Your task to perform on an android device: Check the weather Image 0: 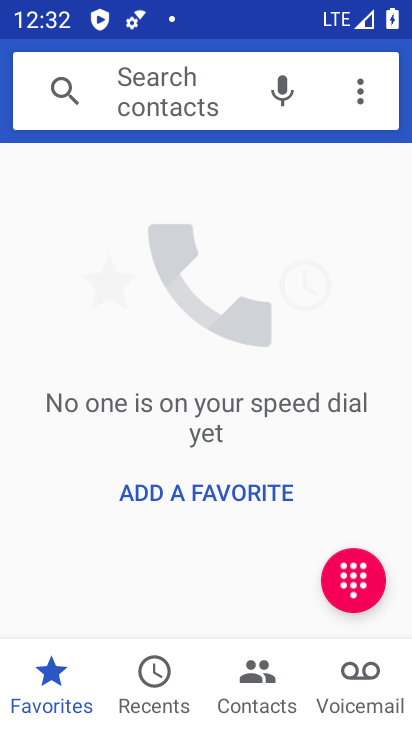
Step 0: press home button
Your task to perform on an android device: Check the weather Image 1: 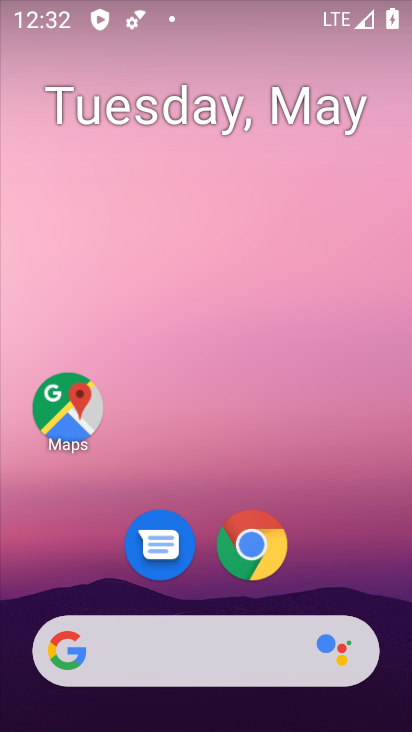
Step 1: drag from (399, 592) to (337, 202)
Your task to perform on an android device: Check the weather Image 2: 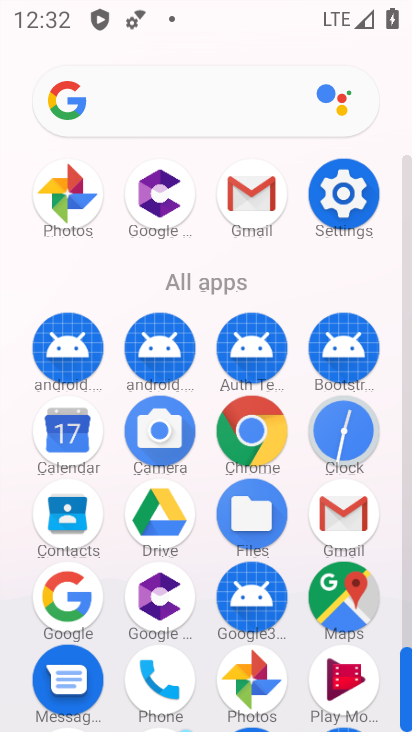
Step 2: drag from (298, 651) to (294, 414)
Your task to perform on an android device: Check the weather Image 3: 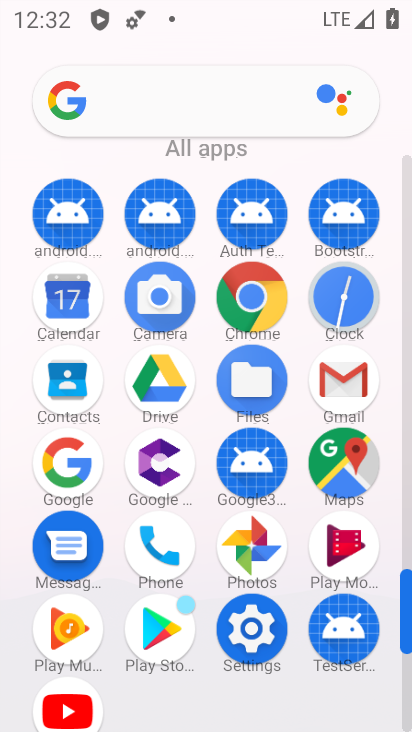
Step 3: click (245, 309)
Your task to perform on an android device: Check the weather Image 4: 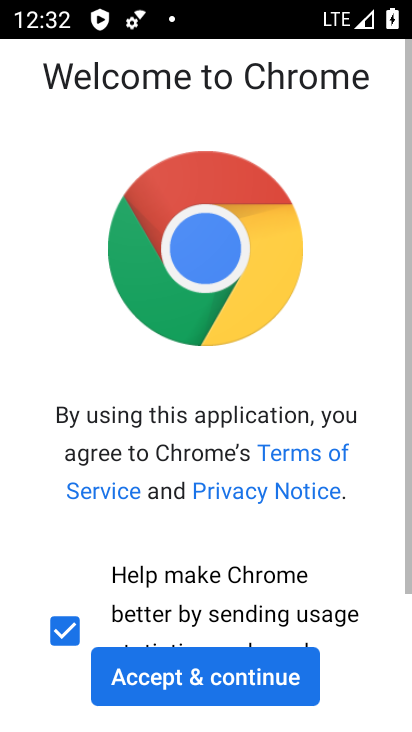
Step 4: click (205, 657)
Your task to perform on an android device: Check the weather Image 5: 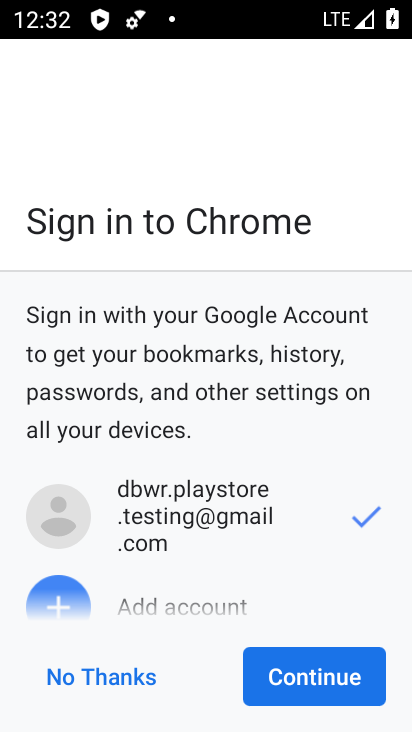
Step 5: click (300, 675)
Your task to perform on an android device: Check the weather Image 6: 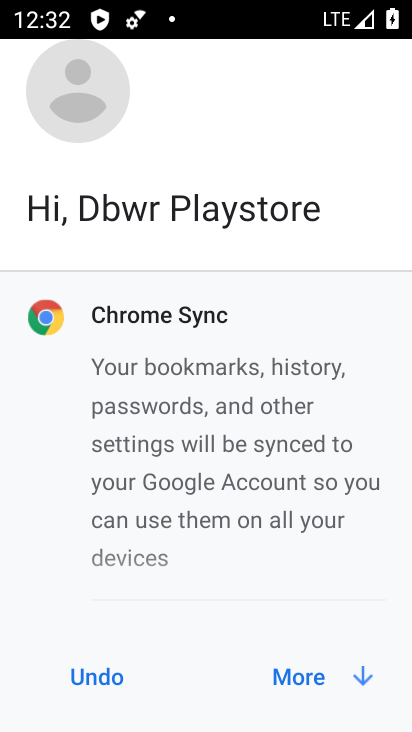
Step 6: click (300, 675)
Your task to perform on an android device: Check the weather Image 7: 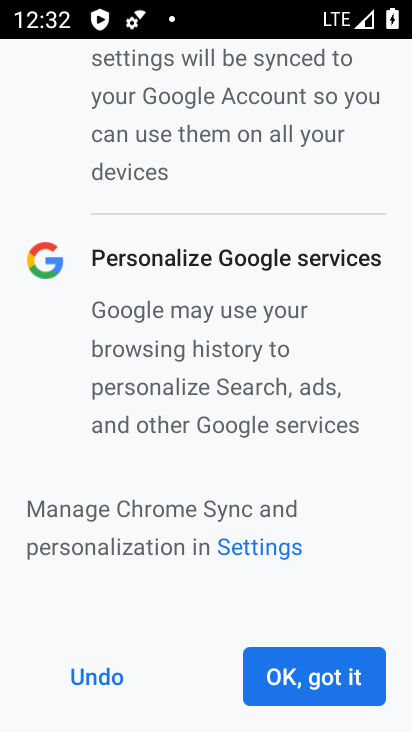
Step 7: click (300, 675)
Your task to perform on an android device: Check the weather Image 8: 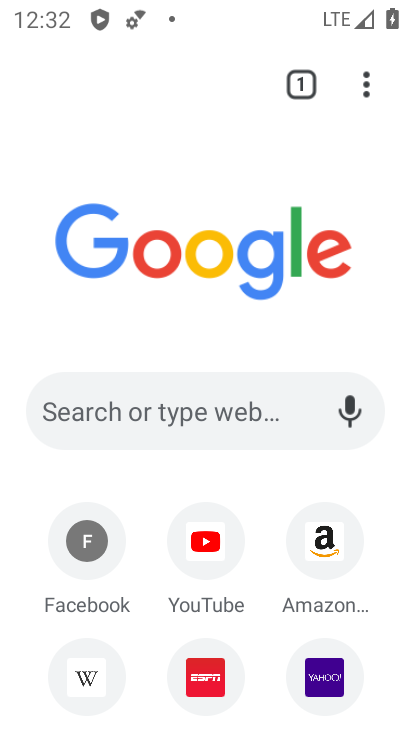
Step 8: click (148, 404)
Your task to perform on an android device: Check the weather Image 9: 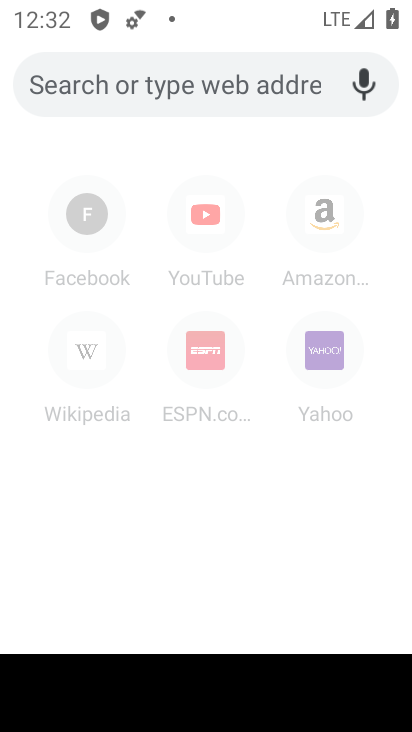
Step 9: type "check the weather"
Your task to perform on an android device: Check the weather Image 10: 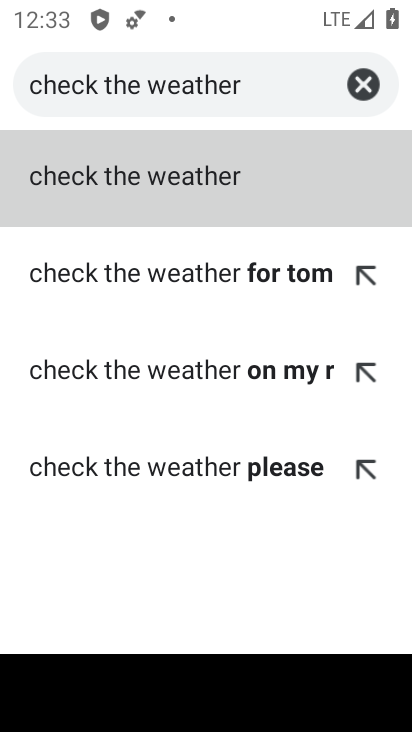
Step 10: click (192, 175)
Your task to perform on an android device: Check the weather Image 11: 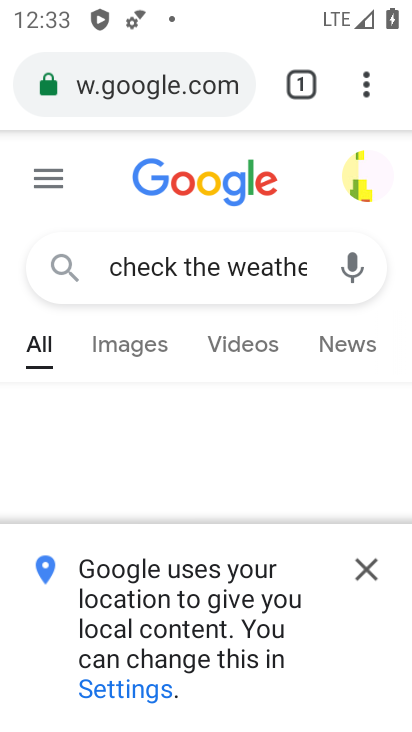
Step 11: click (364, 579)
Your task to perform on an android device: Check the weather Image 12: 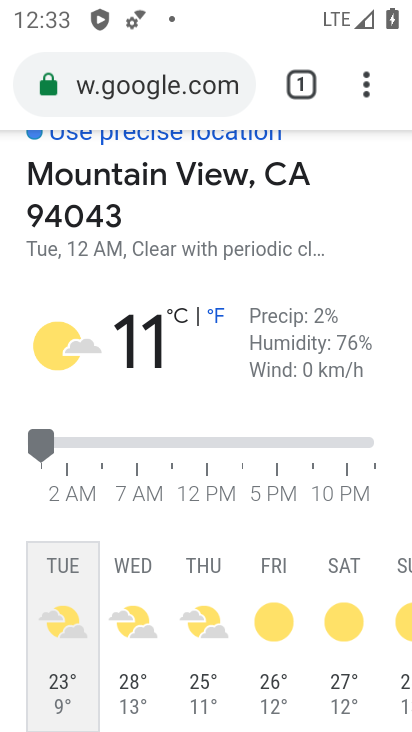
Step 12: task complete